Your task to perform on an android device: empty trash in google photos Image 0: 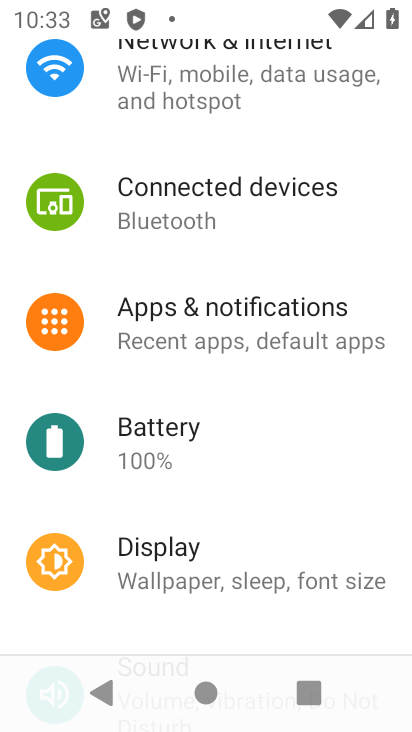
Step 0: press home button
Your task to perform on an android device: empty trash in google photos Image 1: 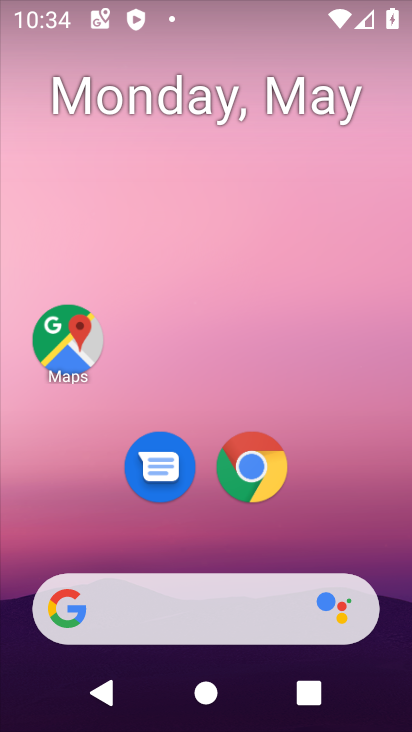
Step 1: drag from (400, 611) to (398, 210)
Your task to perform on an android device: empty trash in google photos Image 2: 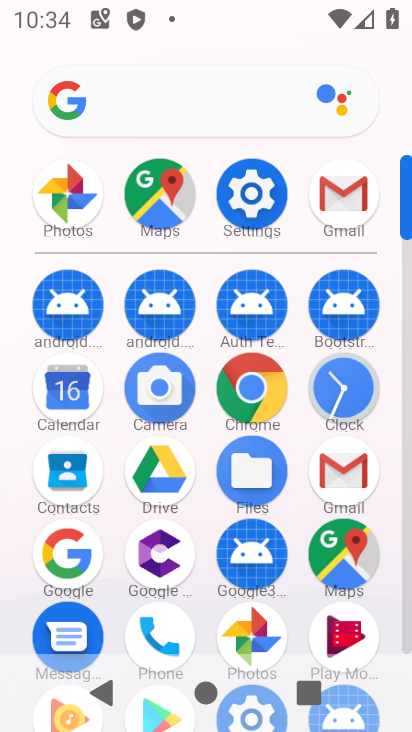
Step 2: click (404, 633)
Your task to perform on an android device: empty trash in google photos Image 3: 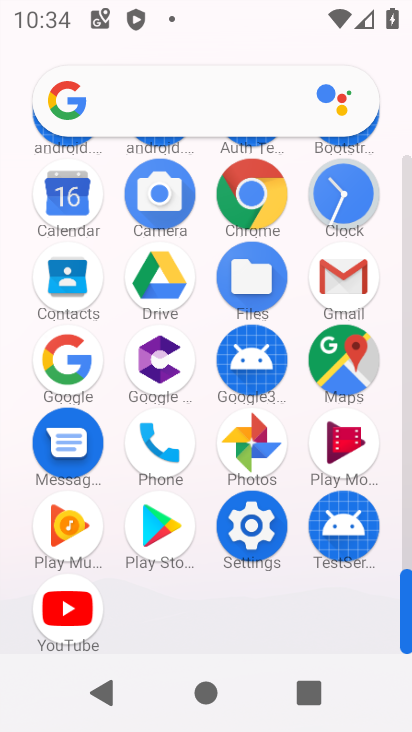
Step 3: click (252, 437)
Your task to perform on an android device: empty trash in google photos Image 4: 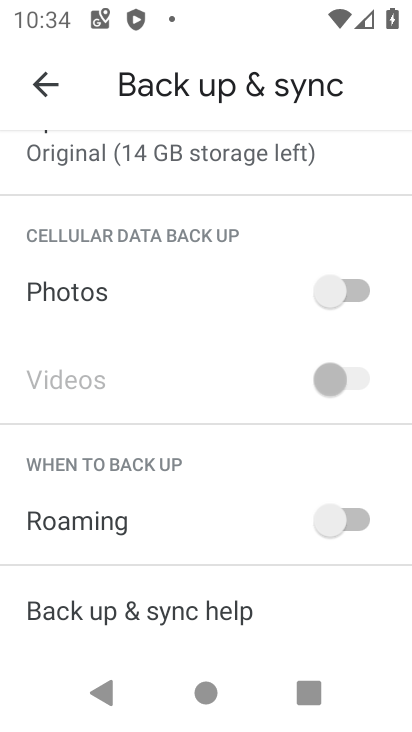
Step 4: press back button
Your task to perform on an android device: empty trash in google photos Image 5: 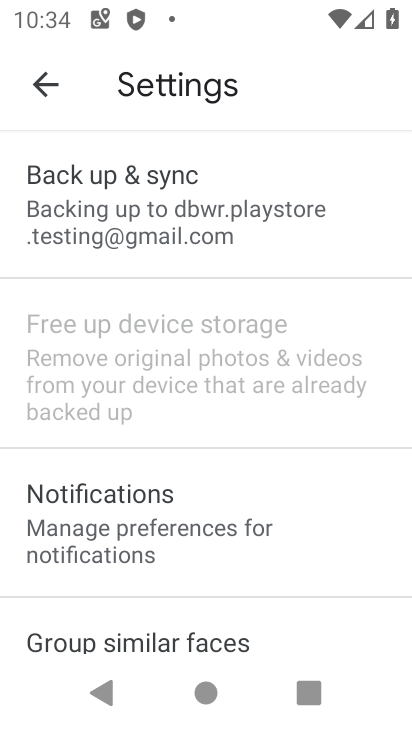
Step 5: press back button
Your task to perform on an android device: empty trash in google photos Image 6: 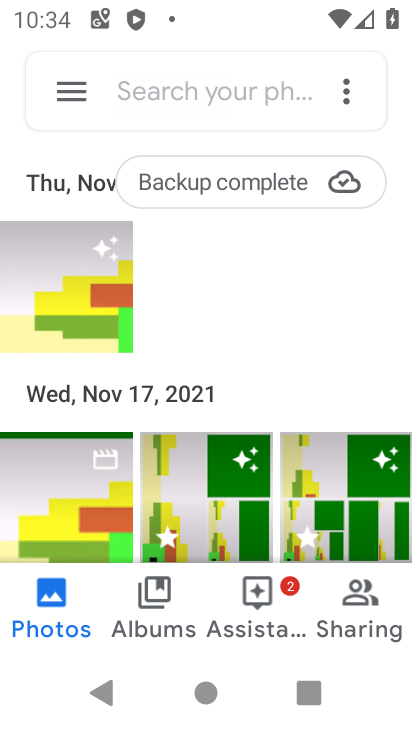
Step 6: click (71, 96)
Your task to perform on an android device: empty trash in google photos Image 7: 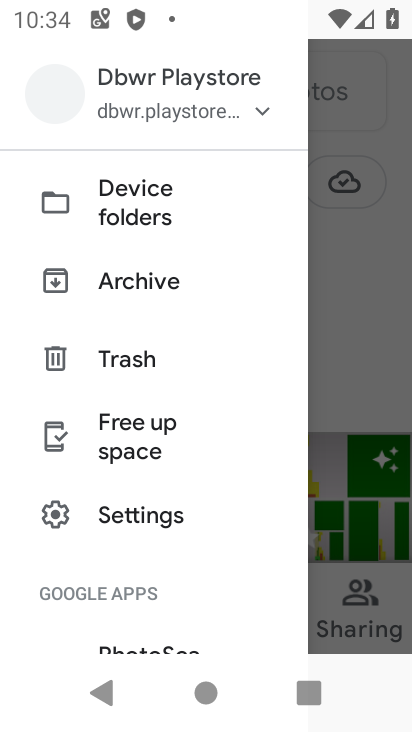
Step 7: click (129, 357)
Your task to perform on an android device: empty trash in google photos Image 8: 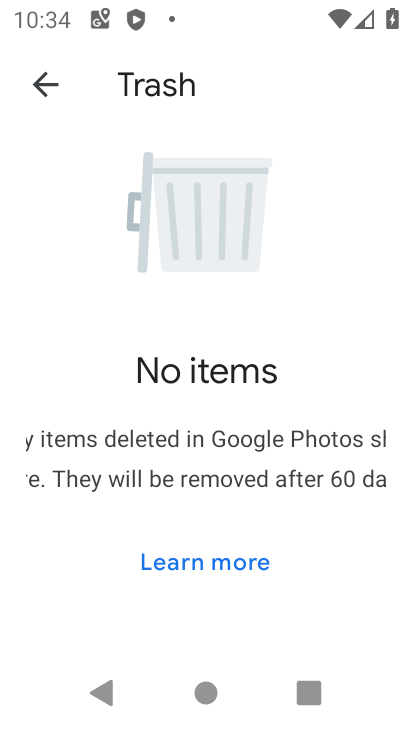
Step 8: task complete